Your task to perform on an android device: toggle notification dots Image 0: 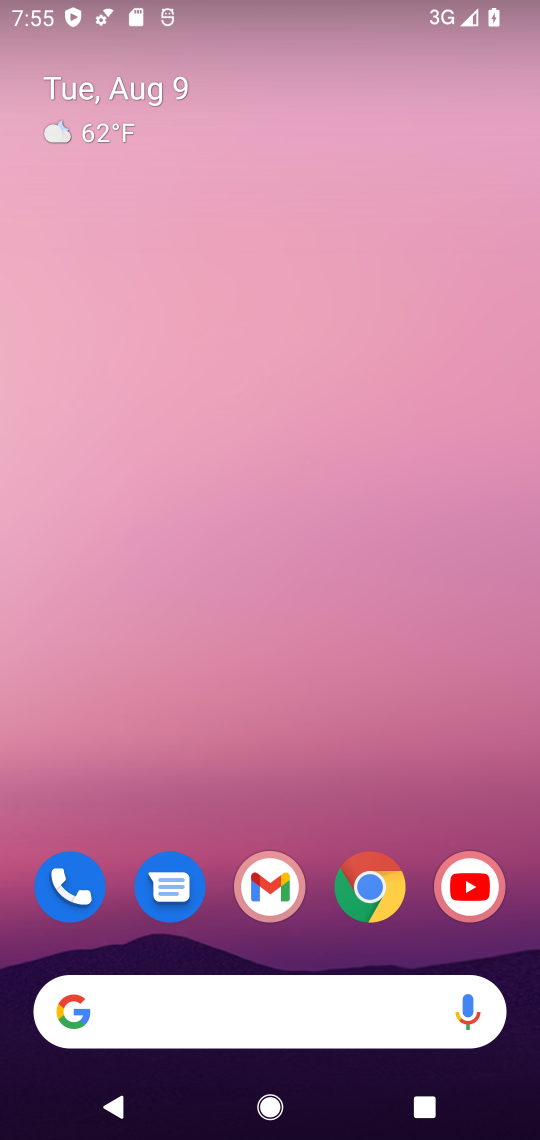
Step 0: drag from (296, 736) to (345, 0)
Your task to perform on an android device: toggle notification dots Image 1: 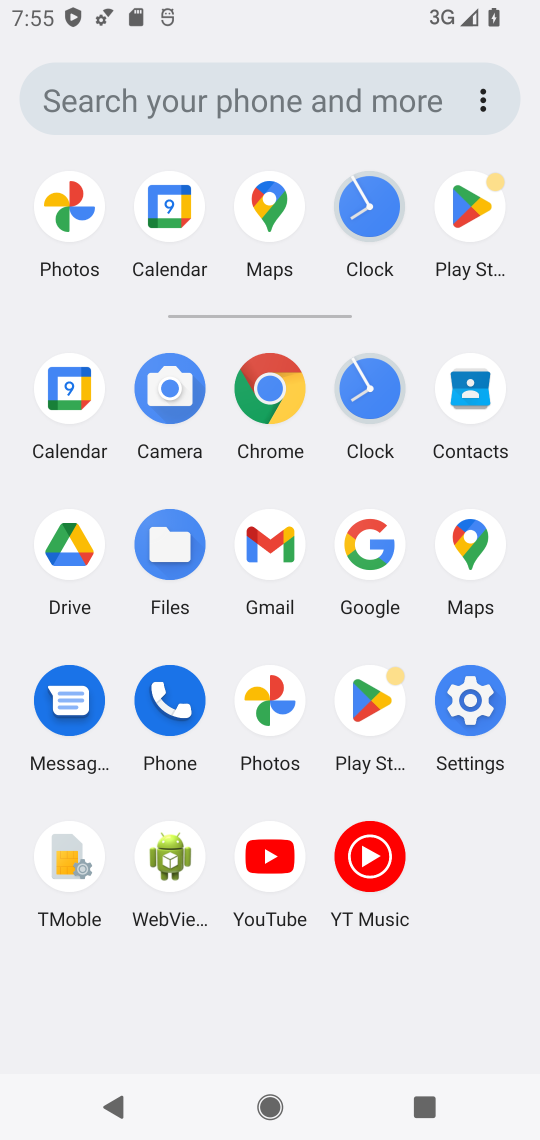
Step 1: click (481, 708)
Your task to perform on an android device: toggle notification dots Image 2: 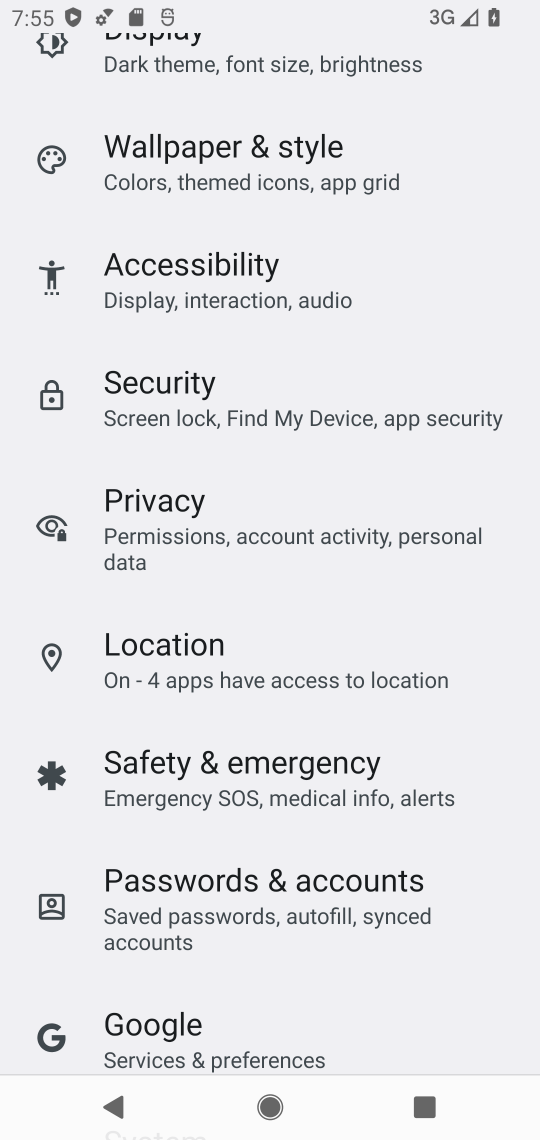
Step 2: drag from (284, 322) to (303, 904)
Your task to perform on an android device: toggle notification dots Image 3: 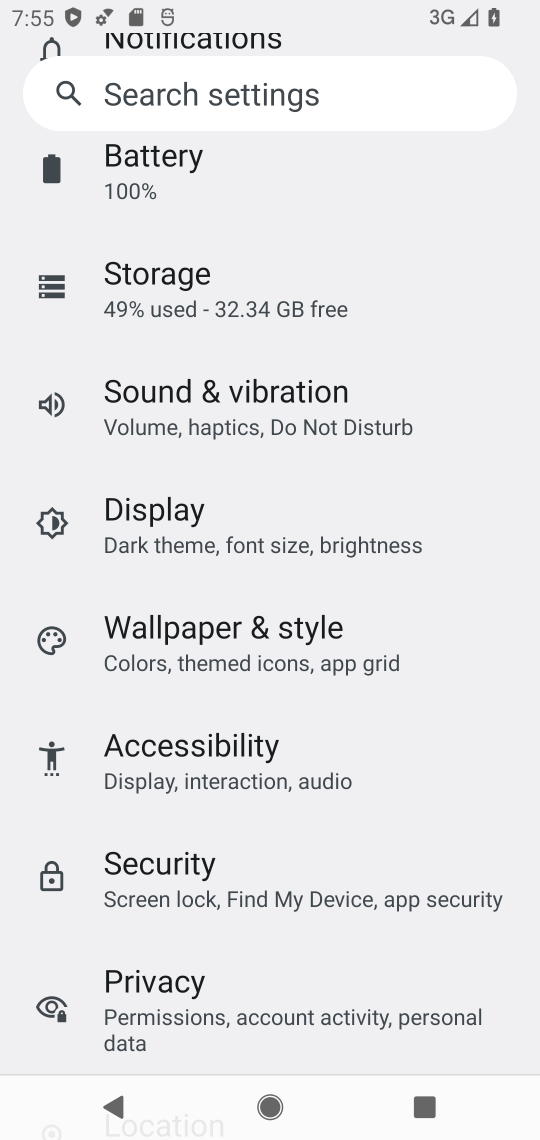
Step 3: drag from (294, 241) to (327, 717)
Your task to perform on an android device: toggle notification dots Image 4: 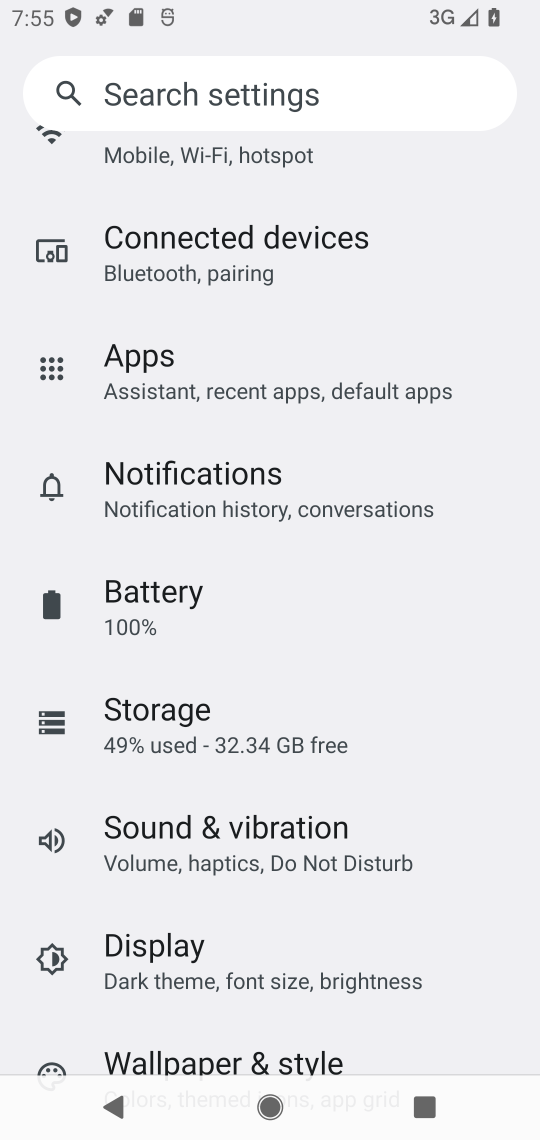
Step 4: click (271, 470)
Your task to perform on an android device: toggle notification dots Image 5: 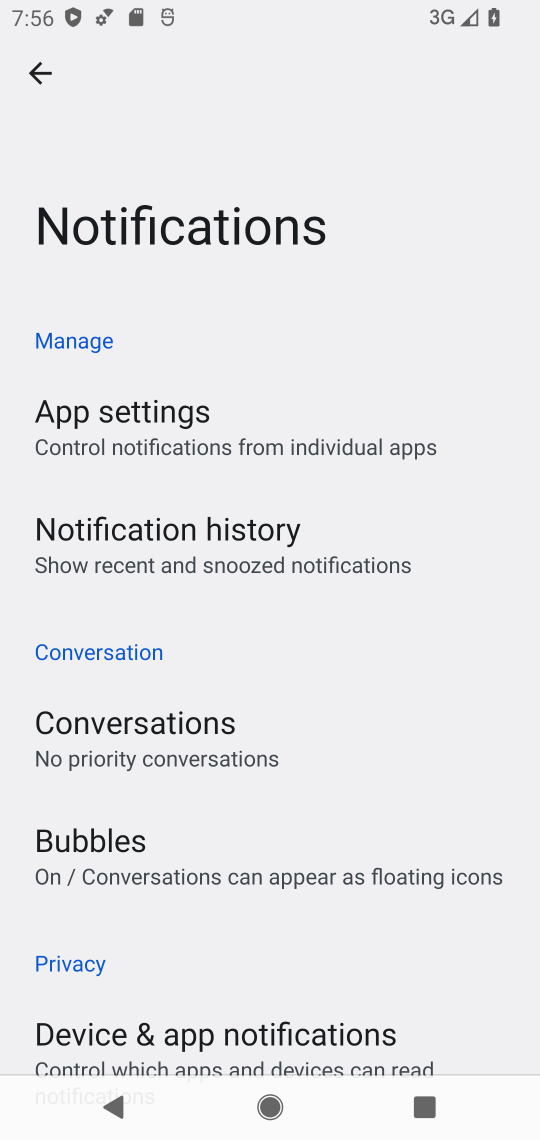
Step 5: drag from (330, 778) to (315, 49)
Your task to perform on an android device: toggle notification dots Image 6: 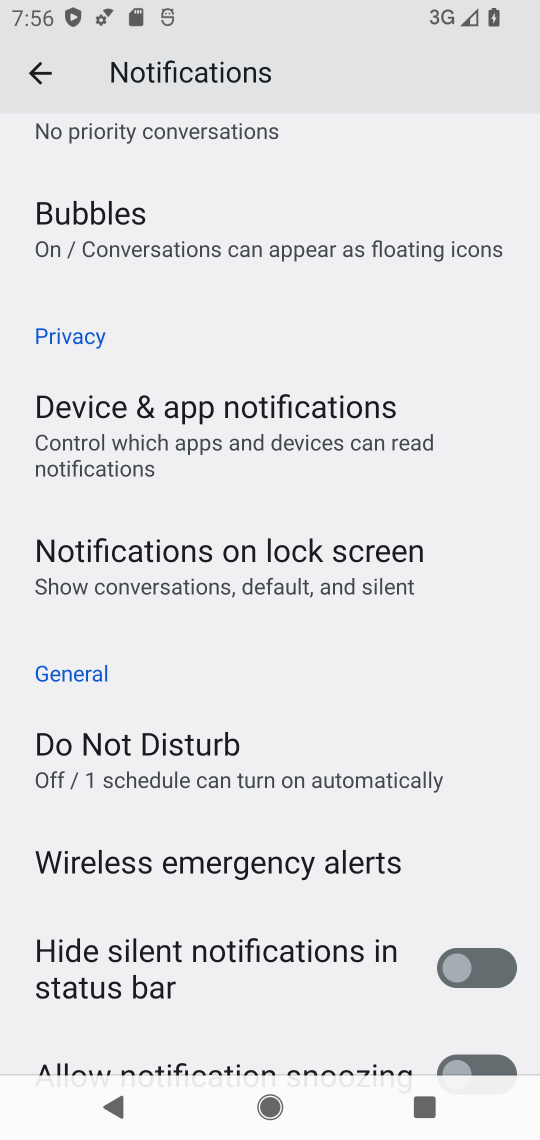
Step 6: drag from (306, 723) to (313, 140)
Your task to perform on an android device: toggle notification dots Image 7: 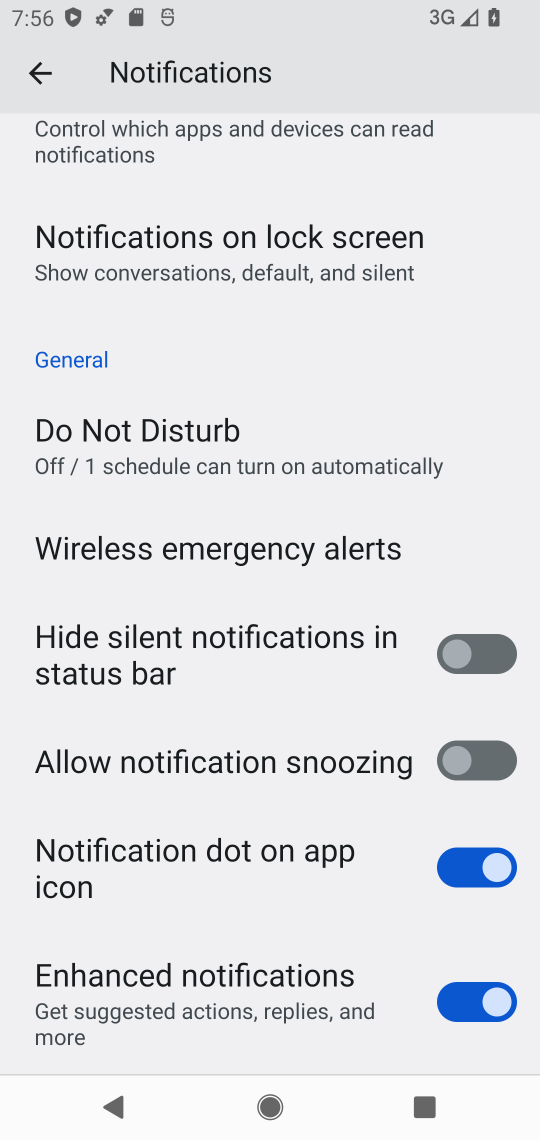
Step 7: click (460, 872)
Your task to perform on an android device: toggle notification dots Image 8: 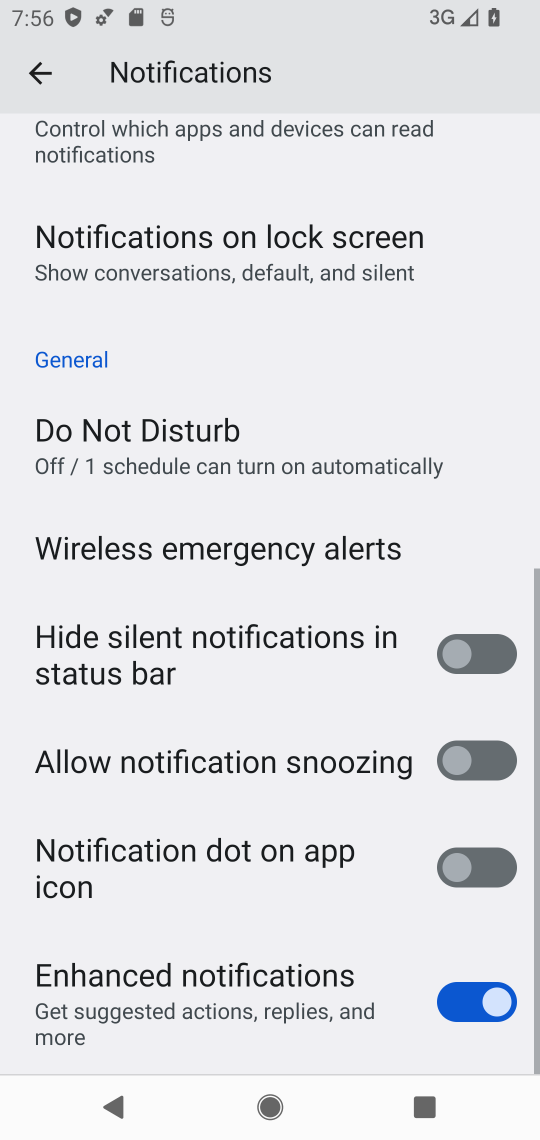
Step 8: task complete